Your task to perform on an android device: What is the news today? Image 0: 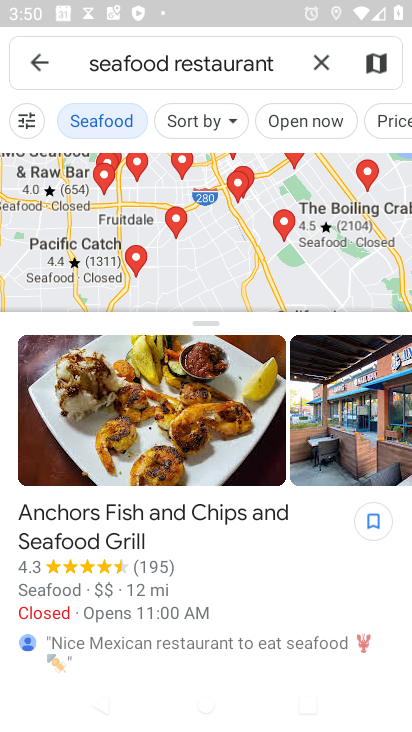
Step 0: press home button
Your task to perform on an android device: What is the news today? Image 1: 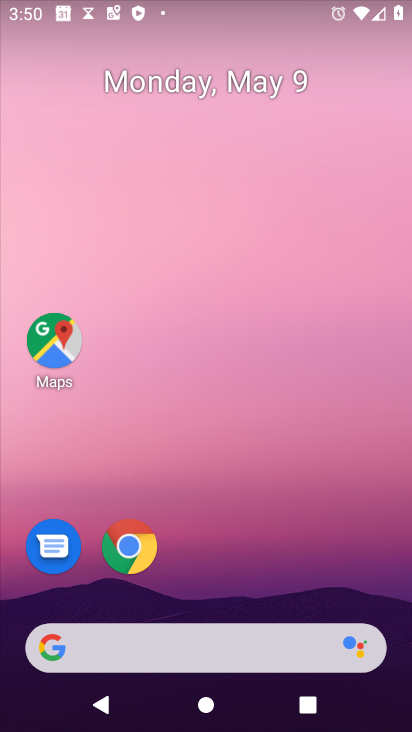
Step 1: drag from (230, 548) to (239, 102)
Your task to perform on an android device: What is the news today? Image 2: 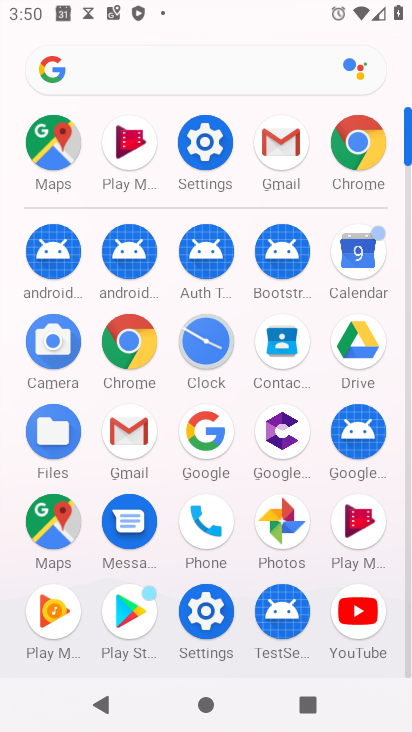
Step 2: click (340, 157)
Your task to perform on an android device: What is the news today? Image 3: 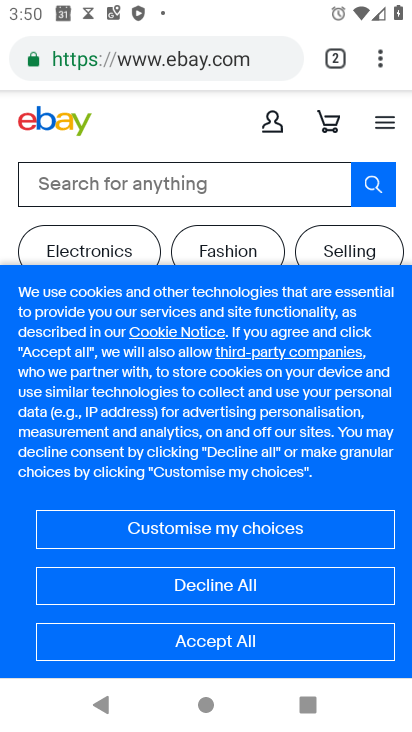
Step 3: task complete